Your task to perform on an android device: toggle javascript in the chrome app Image 0: 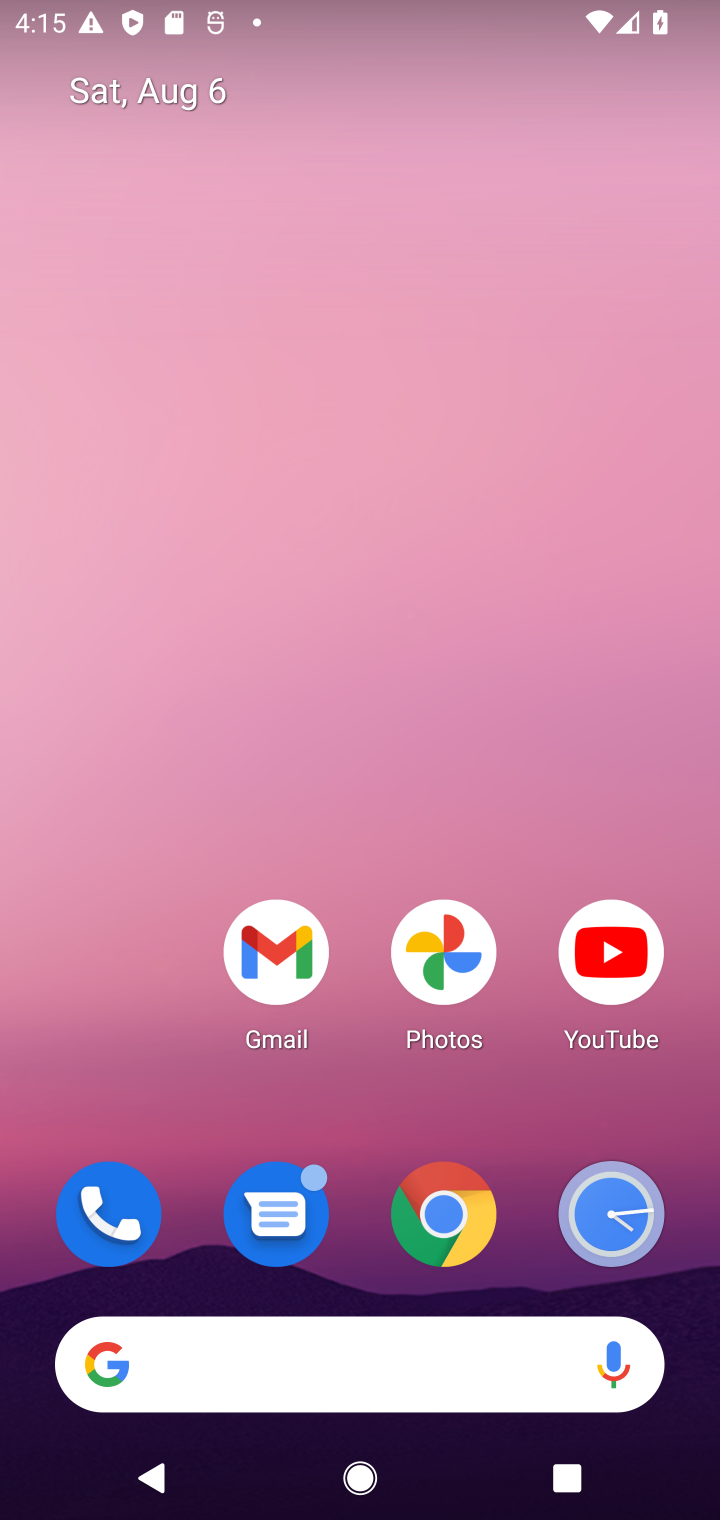
Step 0: click (428, 1244)
Your task to perform on an android device: toggle javascript in the chrome app Image 1: 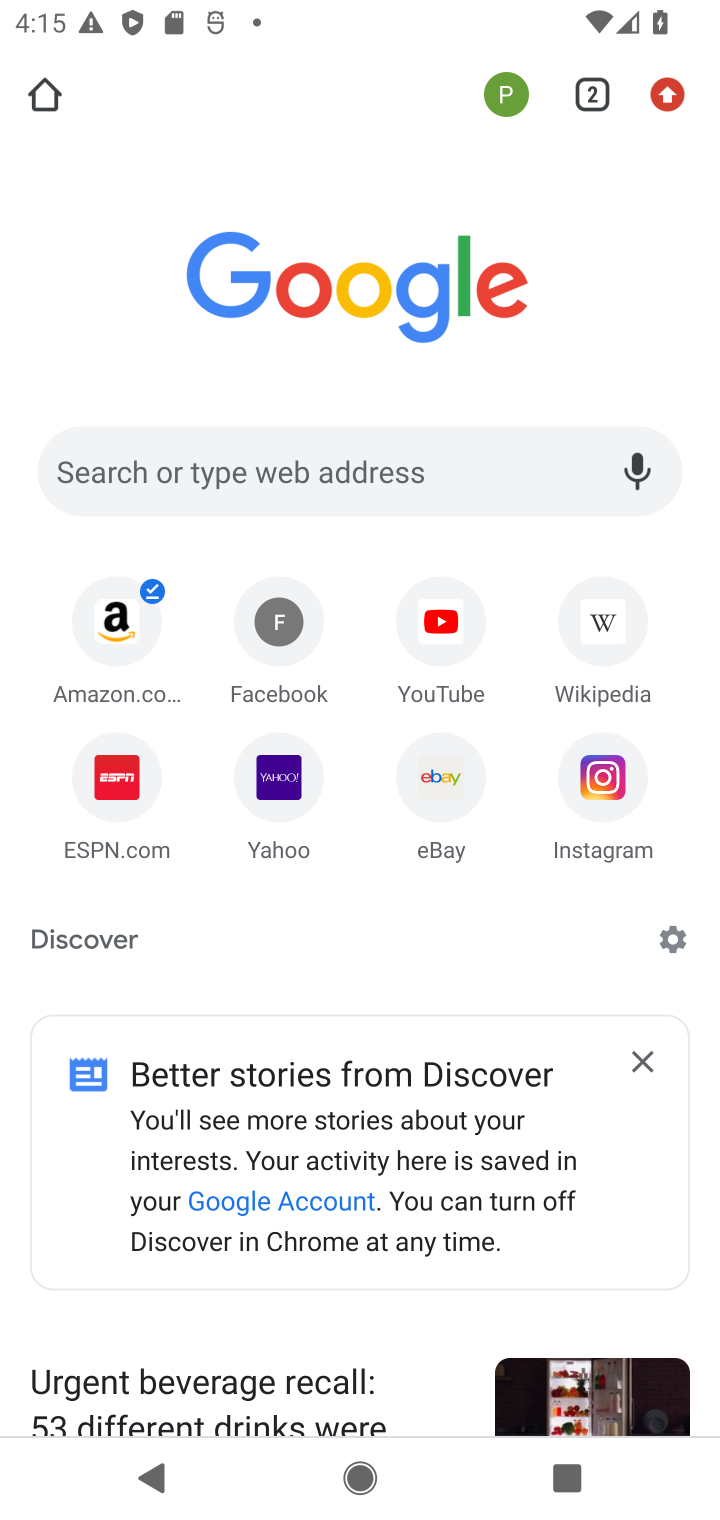
Step 1: click (669, 91)
Your task to perform on an android device: toggle javascript in the chrome app Image 2: 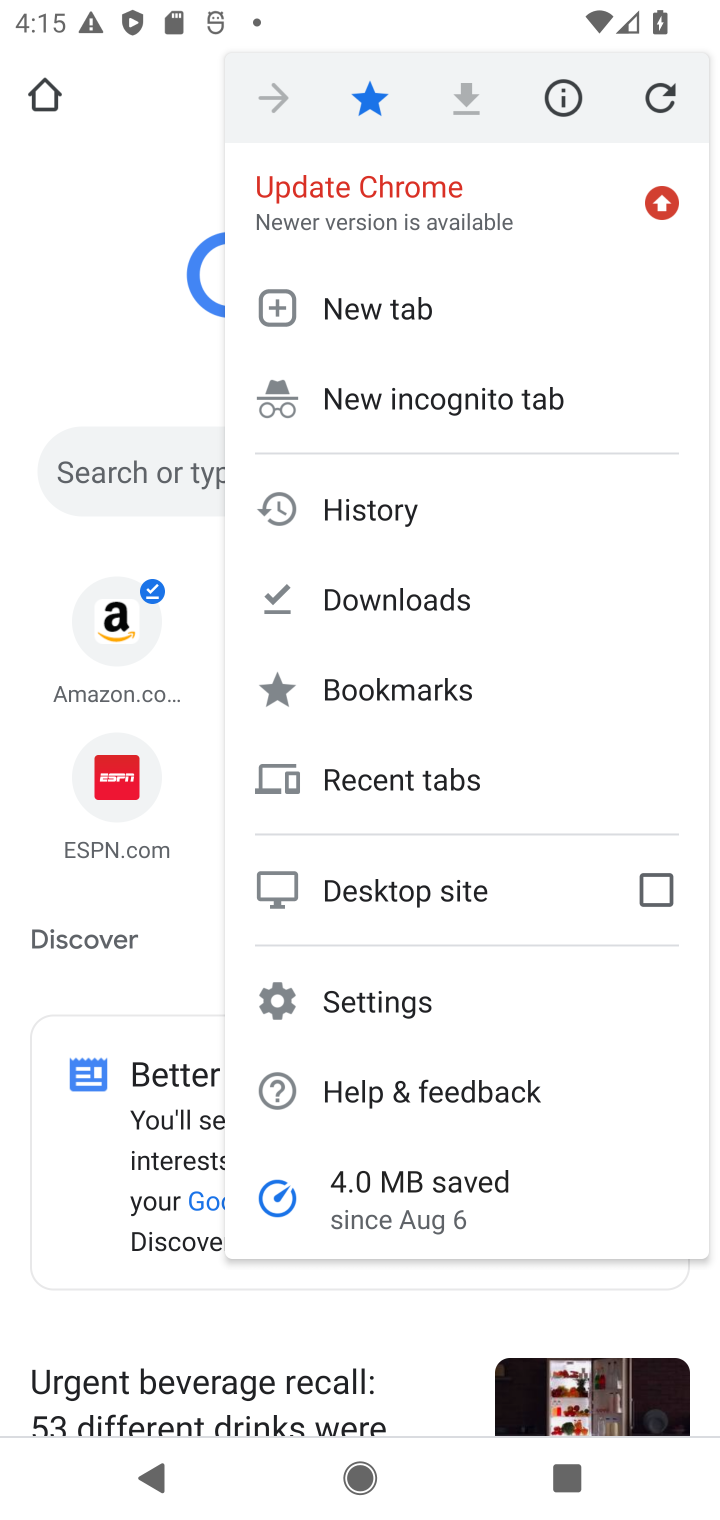
Step 2: click (367, 994)
Your task to perform on an android device: toggle javascript in the chrome app Image 3: 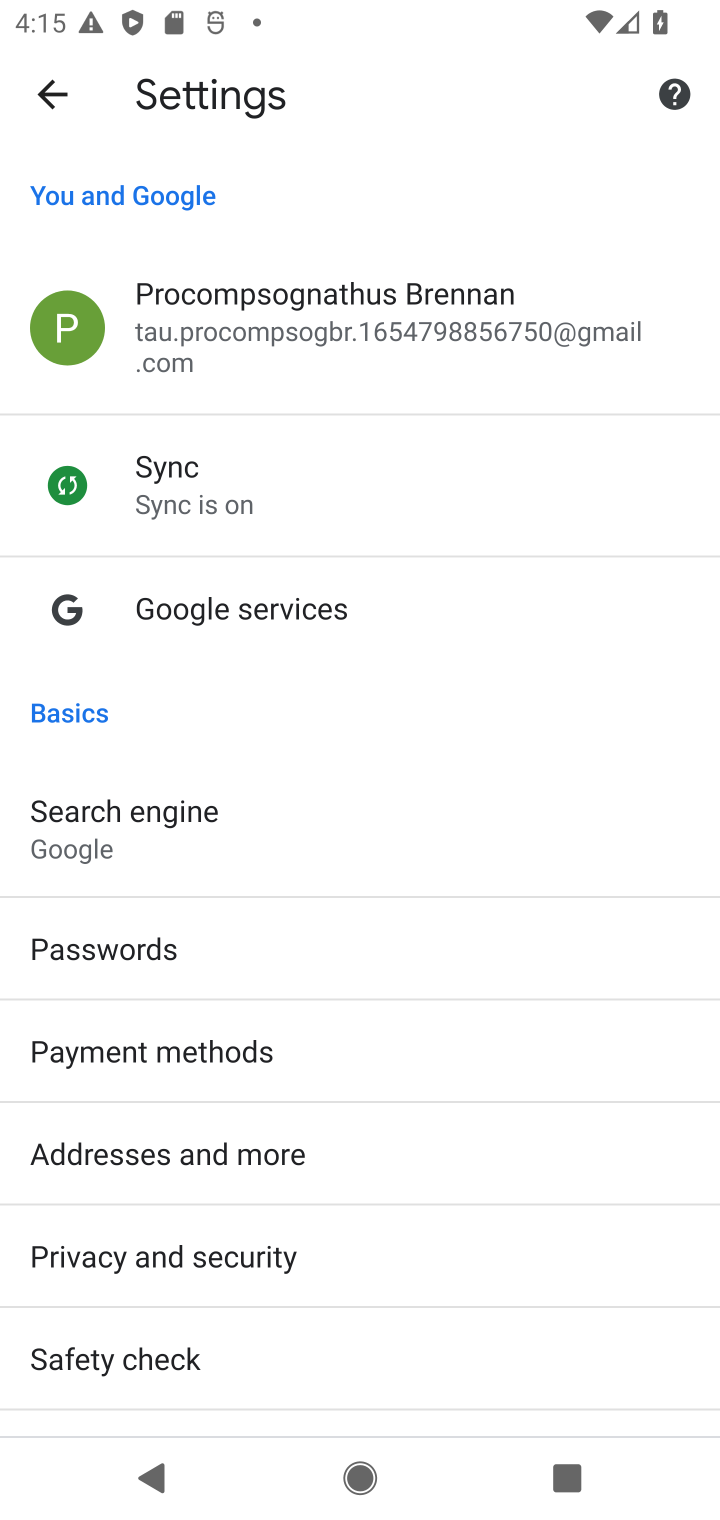
Step 3: drag from (283, 1225) to (287, 1054)
Your task to perform on an android device: toggle javascript in the chrome app Image 4: 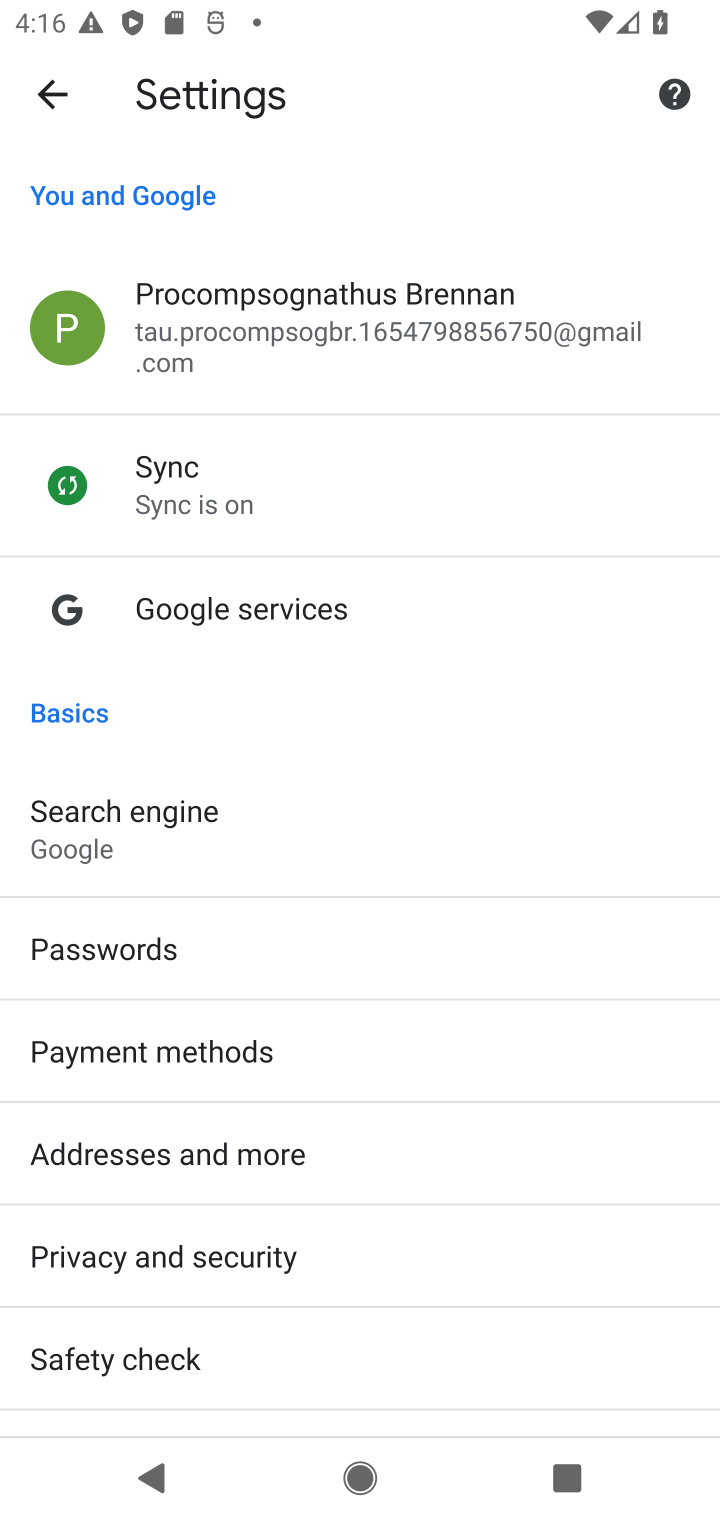
Step 4: drag from (184, 1249) to (251, 826)
Your task to perform on an android device: toggle javascript in the chrome app Image 5: 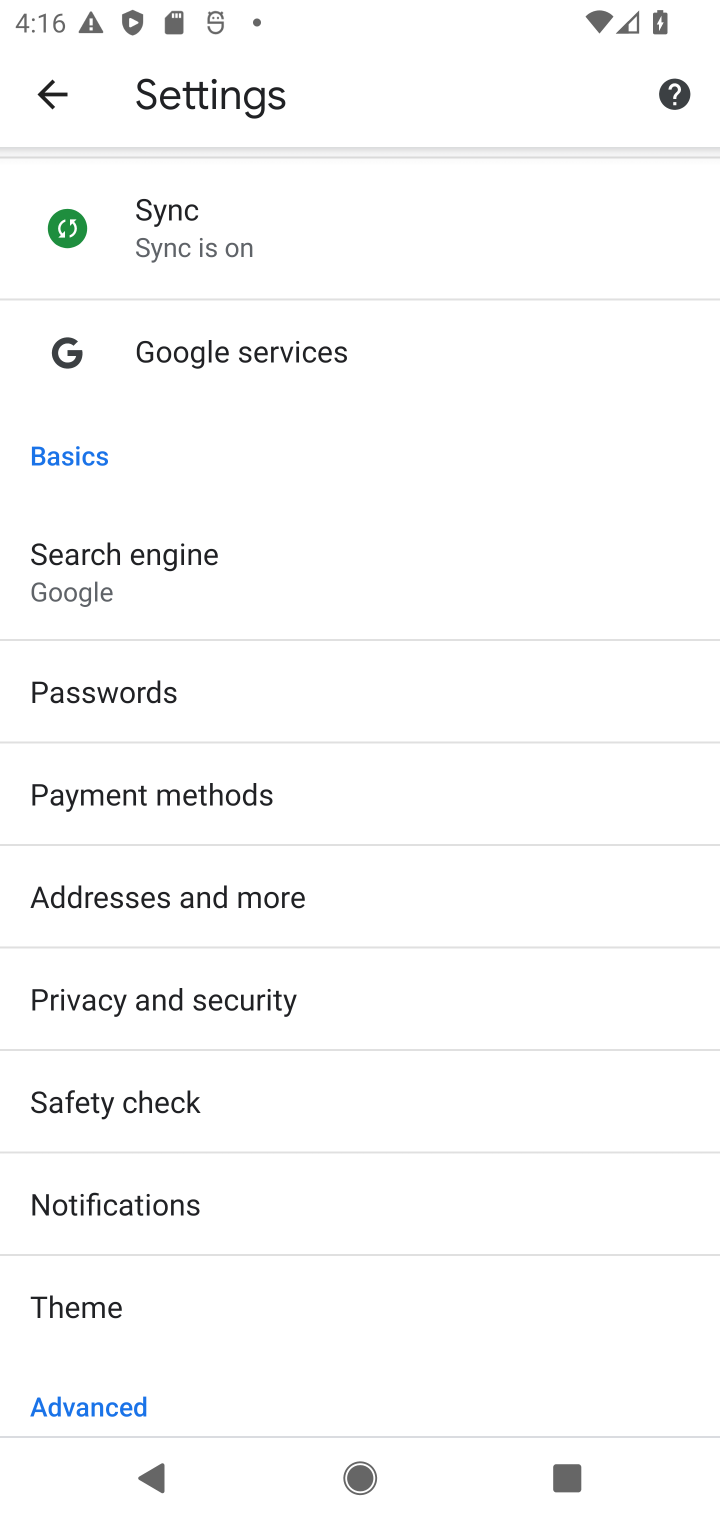
Step 5: drag from (393, 1251) to (393, 825)
Your task to perform on an android device: toggle javascript in the chrome app Image 6: 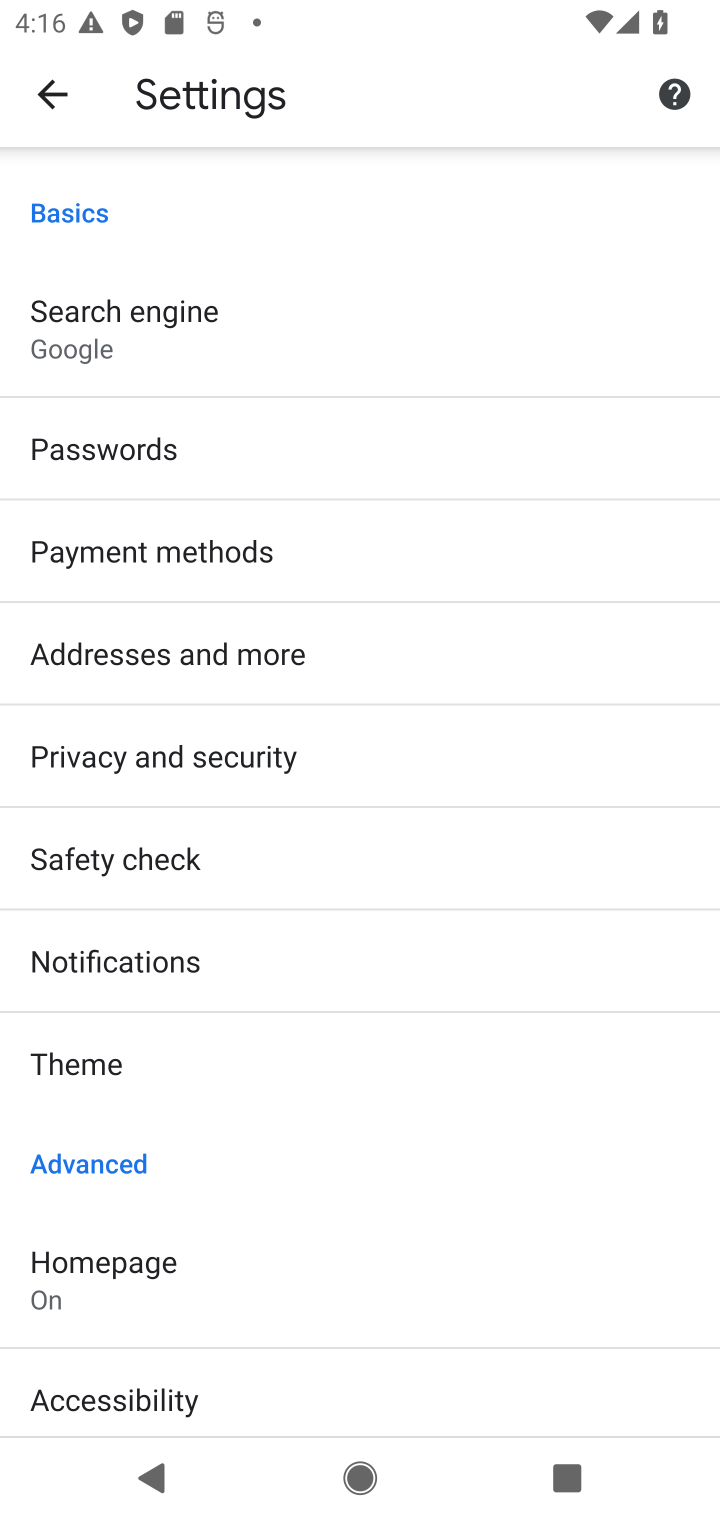
Step 6: drag from (277, 1098) to (292, 638)
Your task to perform on an android device: toggle javascript in the chrome app Image 7: 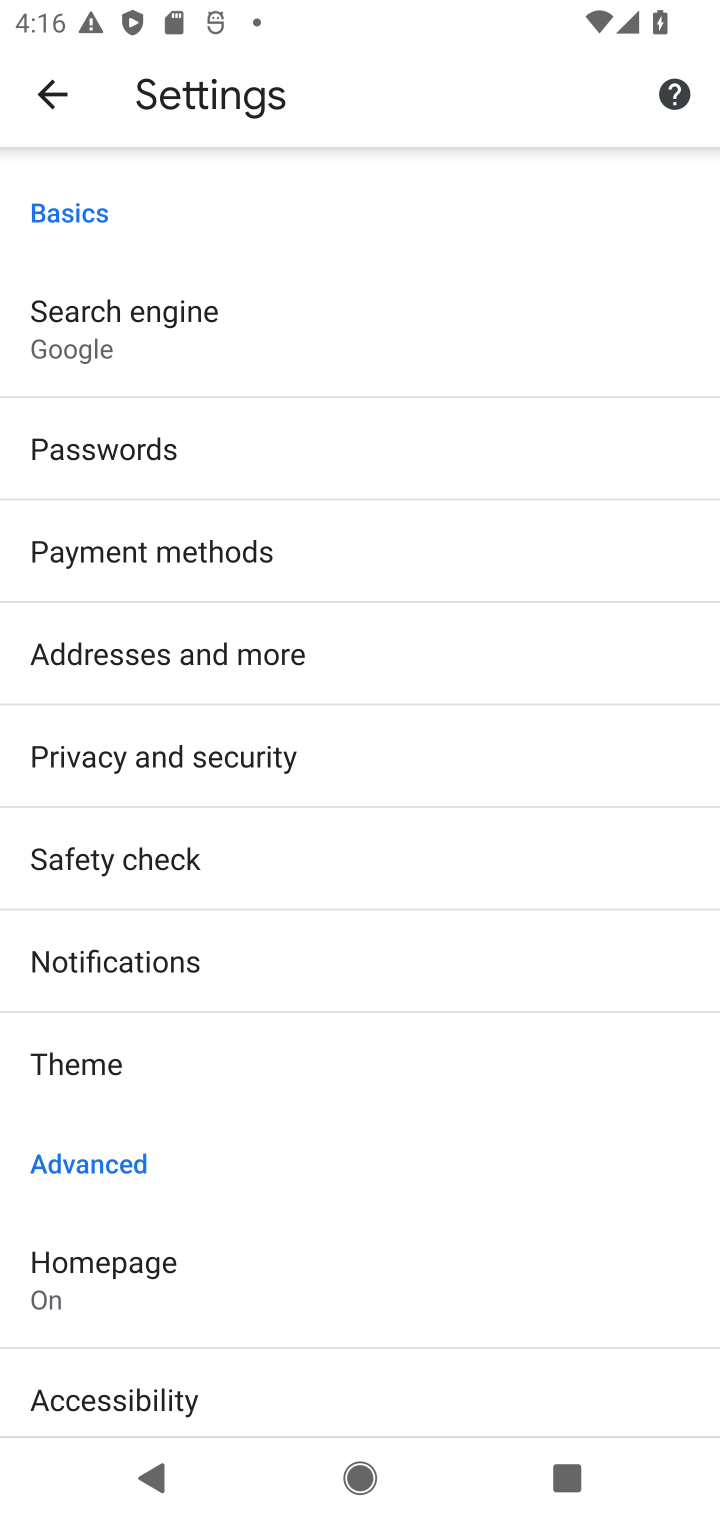
Step 7: drag from (249, 1338) to (253, 932)
Your task to perform on an android device: toggle javascript in the chrome app Image 8: 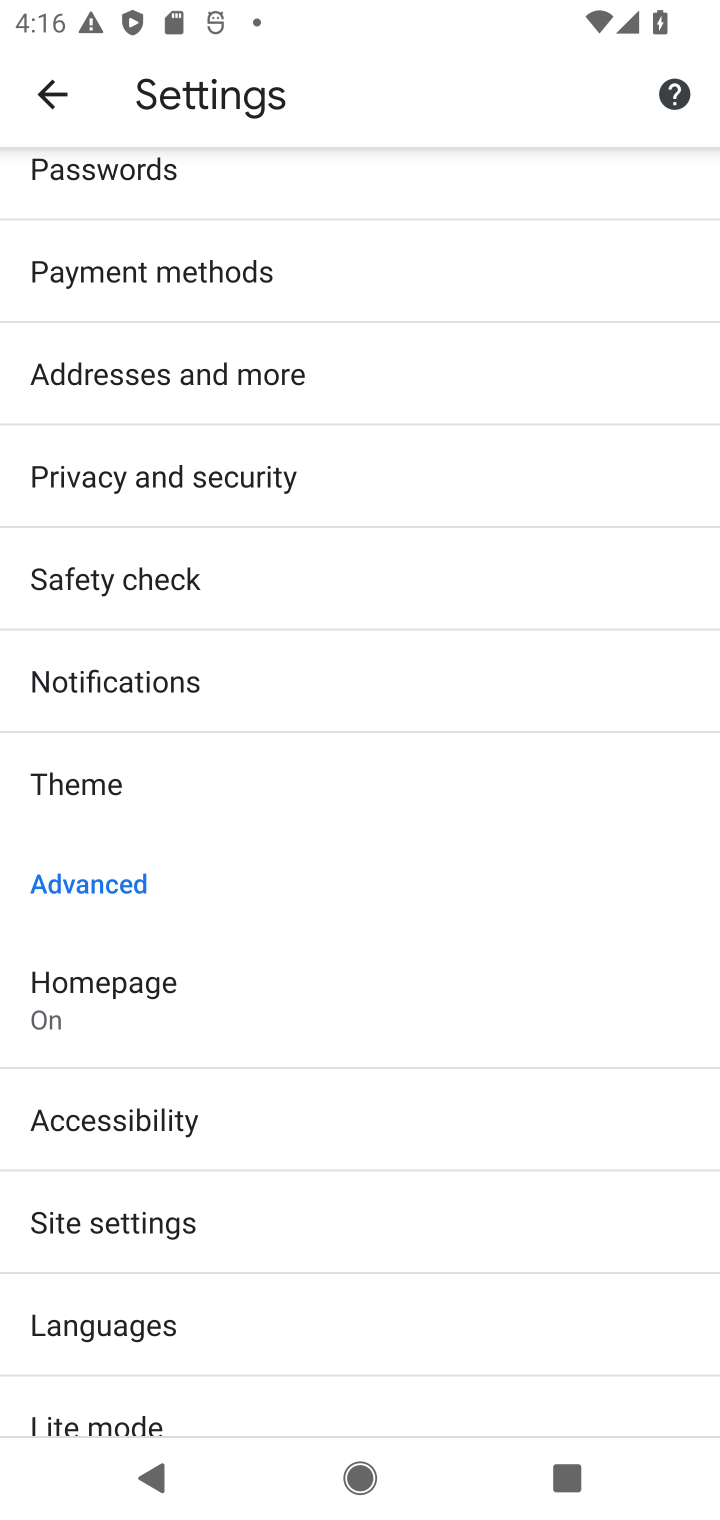
Step 8: click (152, 1240)
Your task to perform on an android device: toggle javascript in the chrome app Image 9: 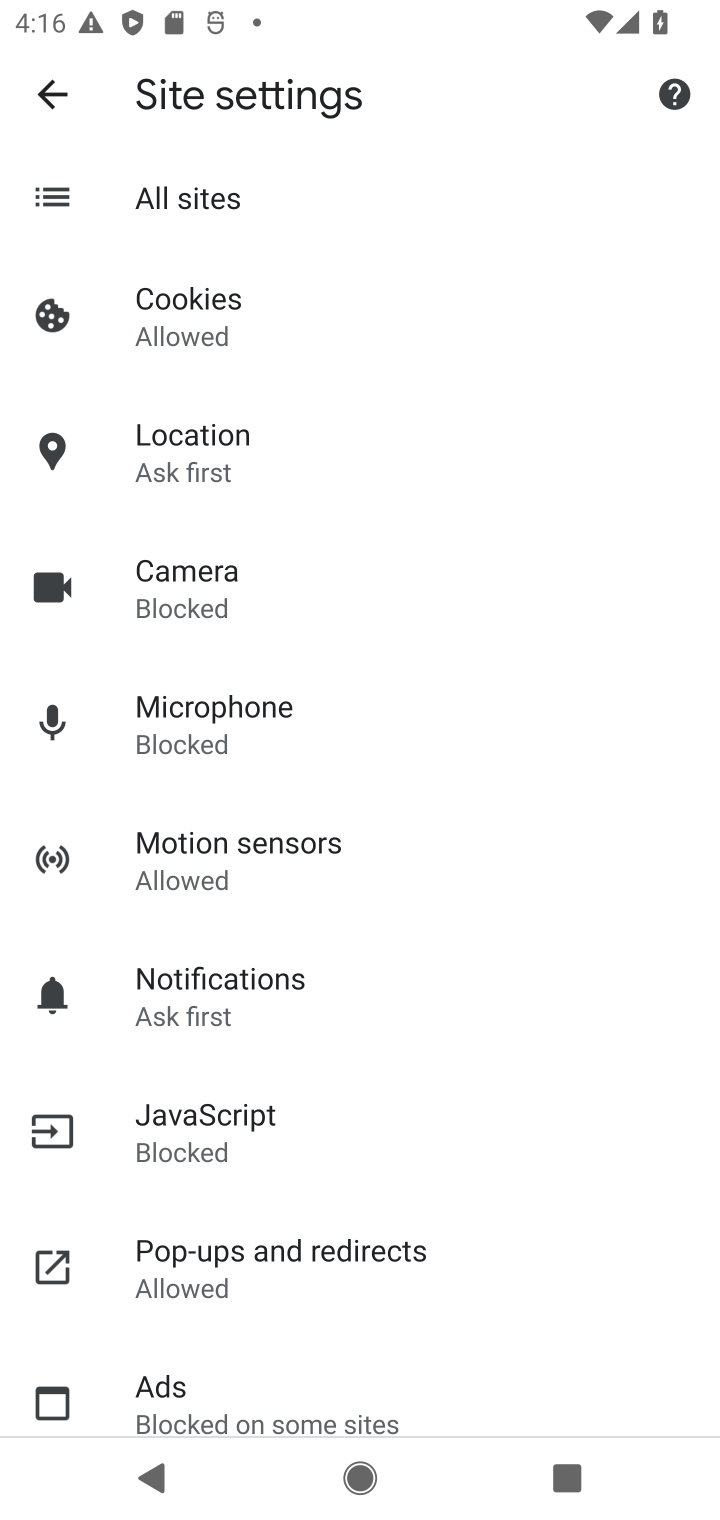
Step 9: click (221, 1141)
Your task to perform on an android device: toggle javascript in the chrome app Image 10: 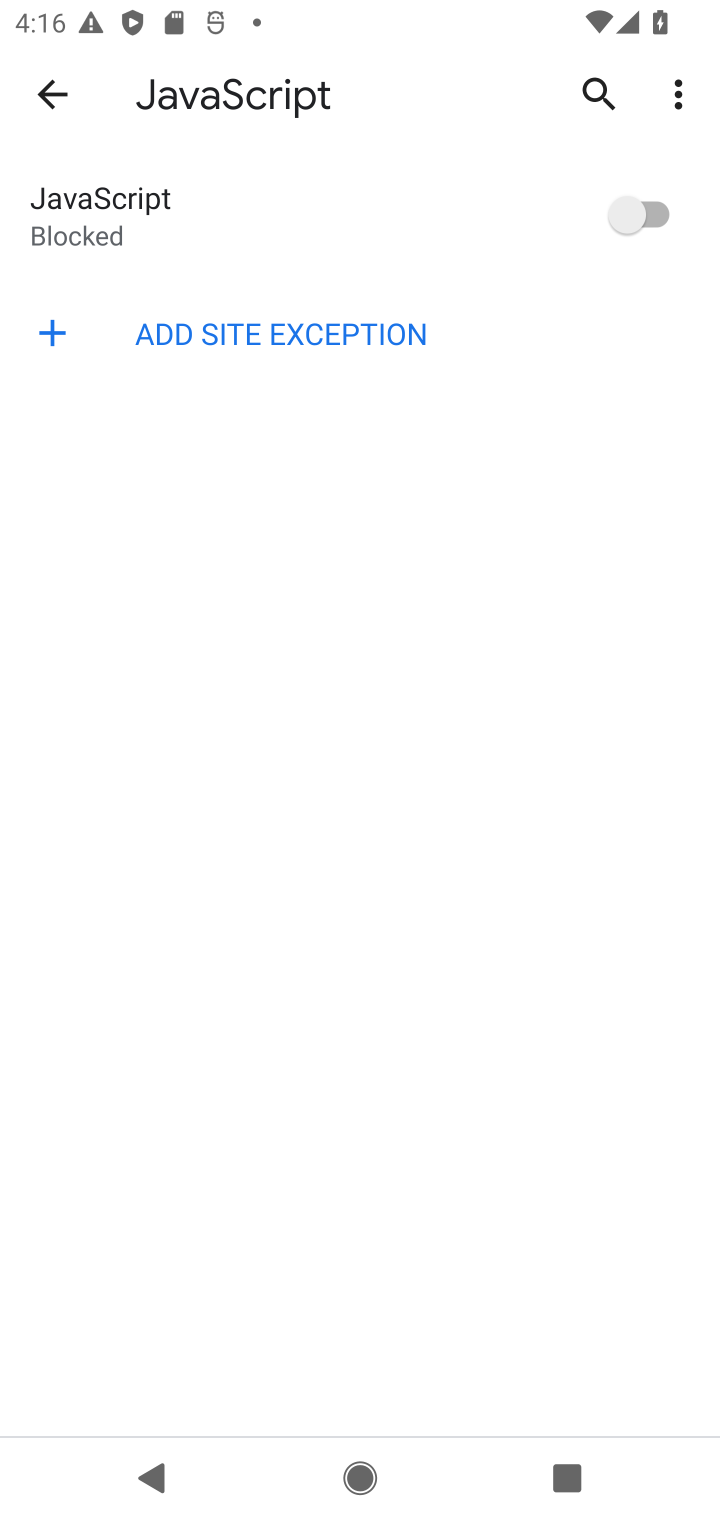
Step 10: click (666, 208)
Your task to perform on an android device: toggle javascript in the chrome app Image 11: 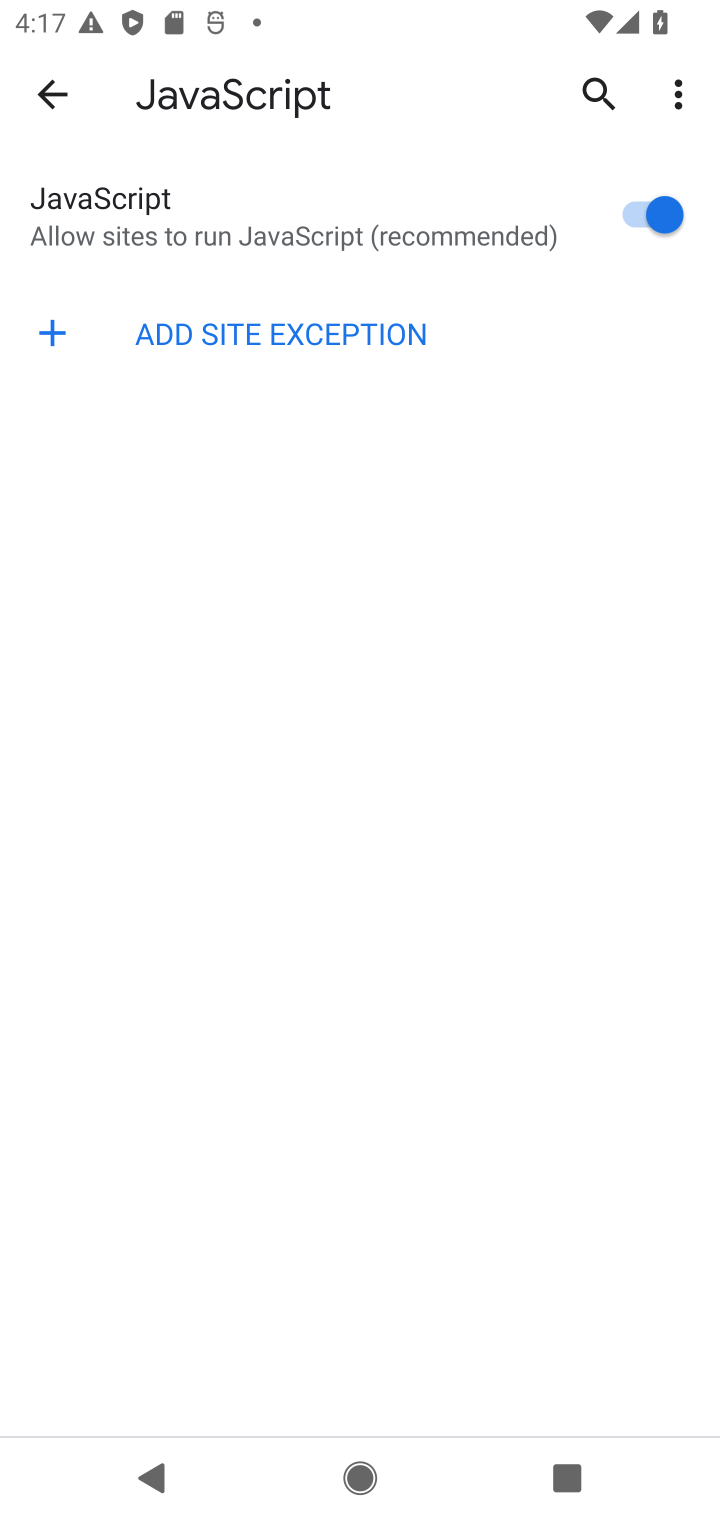
Step 11: task complete